Your task to perform on an android device: turn on wifi Image 0: 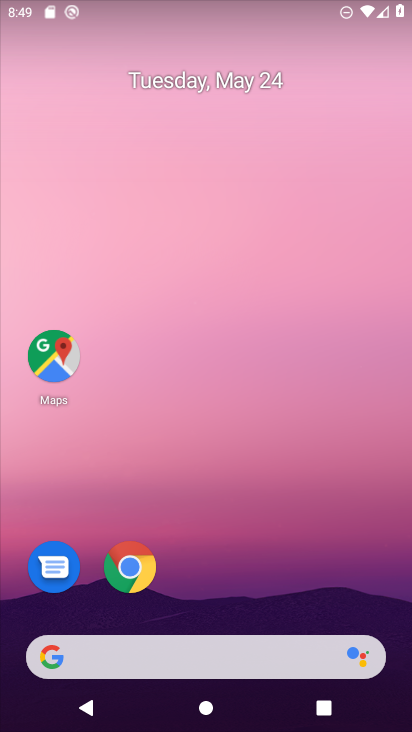
Step 0: press home button
Your task to perform on an android device: turn on wifi Image 1: 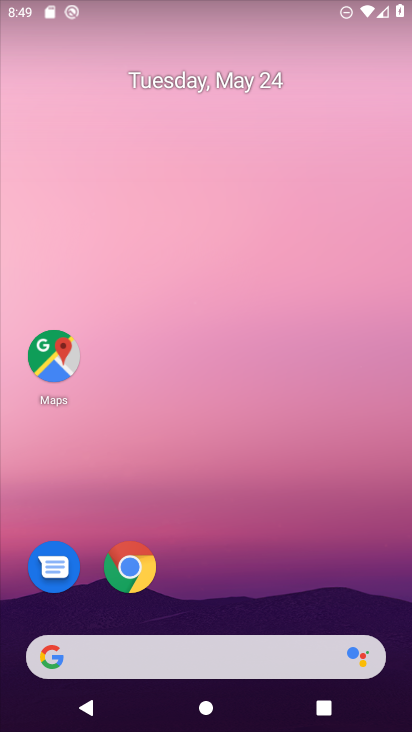
Step 1: drag from (169, 607) to (341, 113)
Your task to perform on an android device: turn on wifi Image 2: 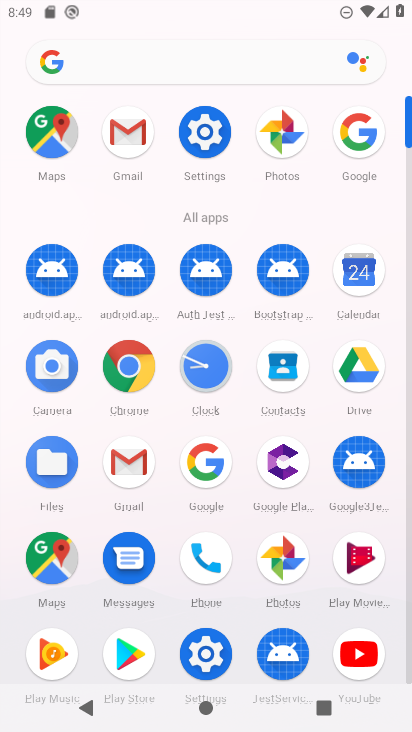
Step 2: click (206, 144)
Your task to perform on an android device: turn on wifi Image 3: 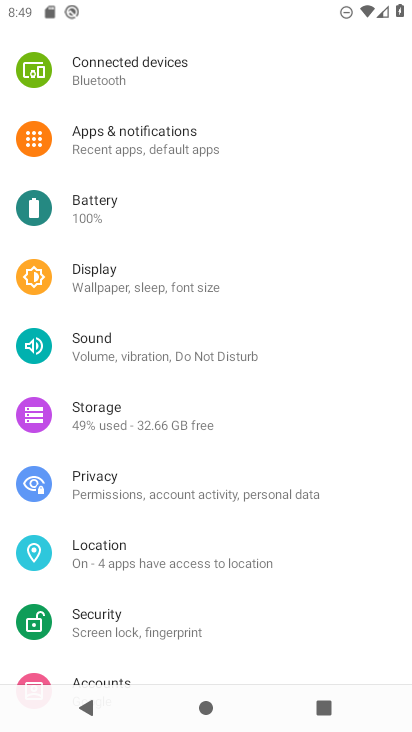
Step 3: drag from (306, 144) to (252, 543)
Your task to perform on an android device: turn on wifi Image 4: 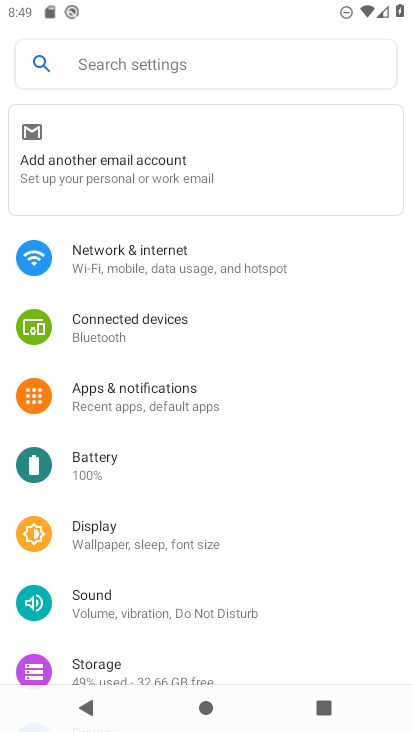
Step 4: click (147, 250)
Your task to perform on an android device: turn on wifi Image 5: 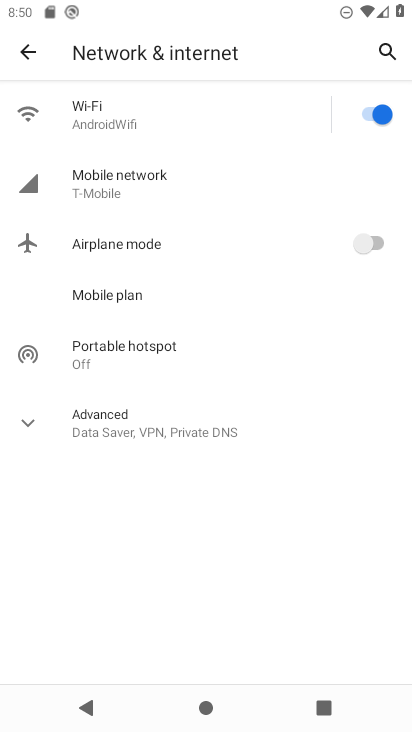
Step 5: task complete